Your task to perform on an android device: turn notification dots on Image 0: 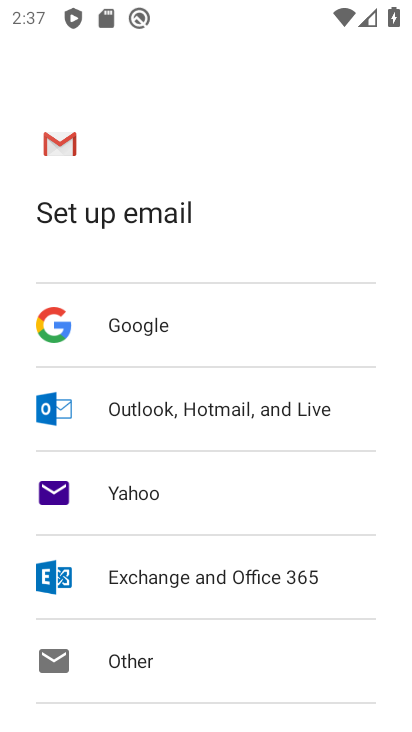
Step 0: press home button
Your task to perform on an android device: turn notification dots on Image 1: 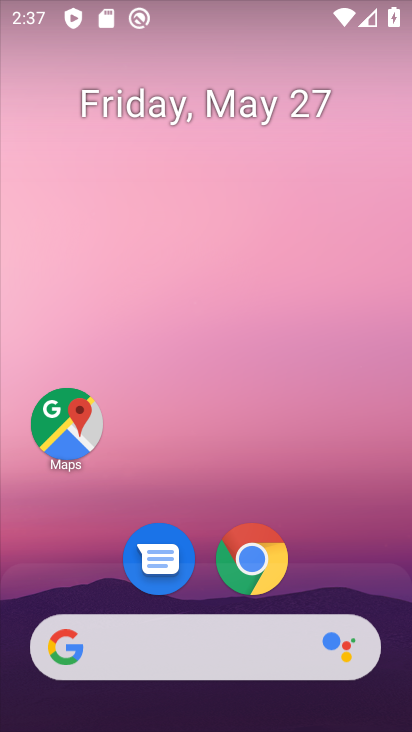
Step 1: drag from (311, 563) to (304, 53)
Your task to perform on an android device: turn notification dots on Image 2: 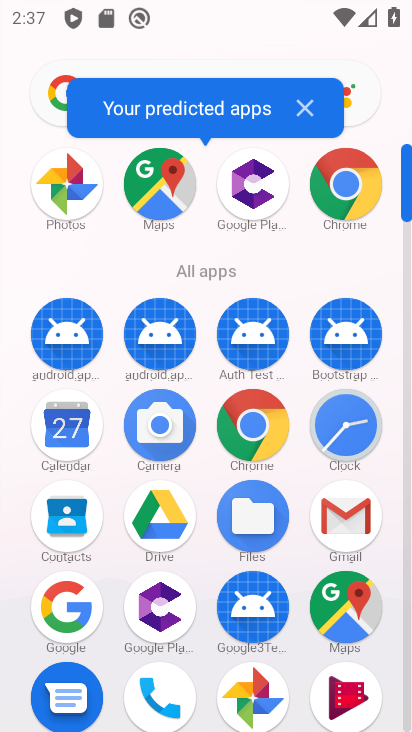
Step 2: drag from (301, 556) to (234, 112)
Your task to perform on an android device: turn notification dots on Image 3: 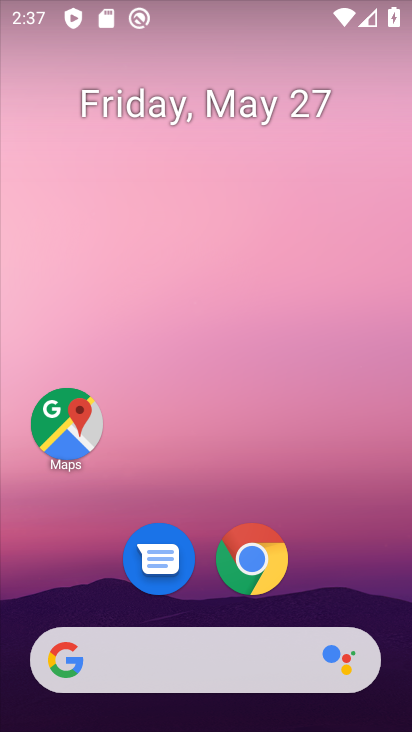
Step 3: drag from (364, 562) to (291, 62)
Your task to perform on an android device: turn notification dots on Image 4: 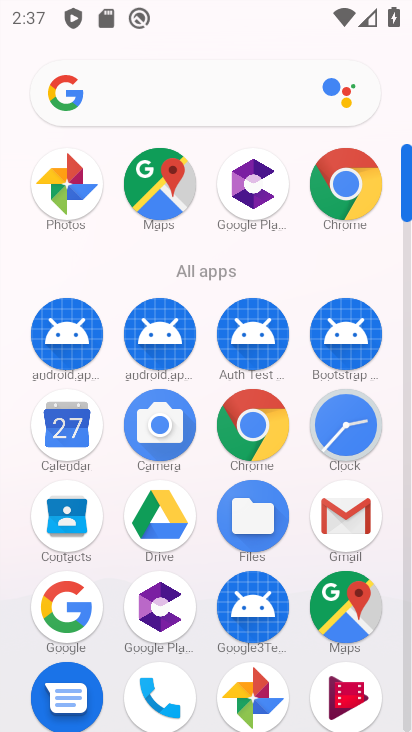
Step 4: drag from (303, 559) to (259, 319)
Your task to perform on an android device: turn notification dots on Image 5: 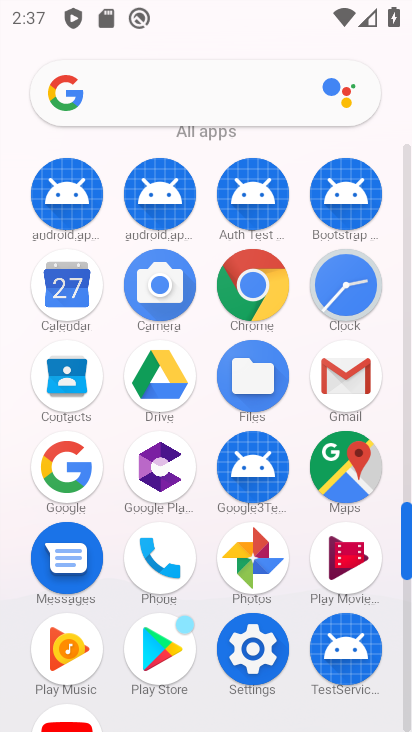
Step 5: click (255, 636)
Your task to perform on an android device: turn notification dots on Image 6: 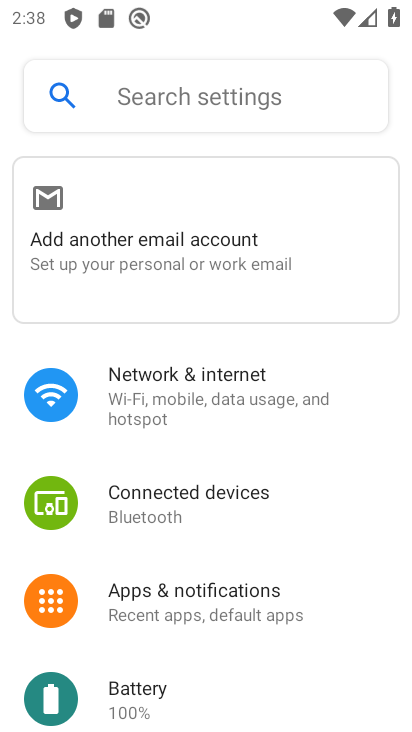
Step 6: click (243, 607)
Your task to perform on an android device: turn notification dots on Image 7: 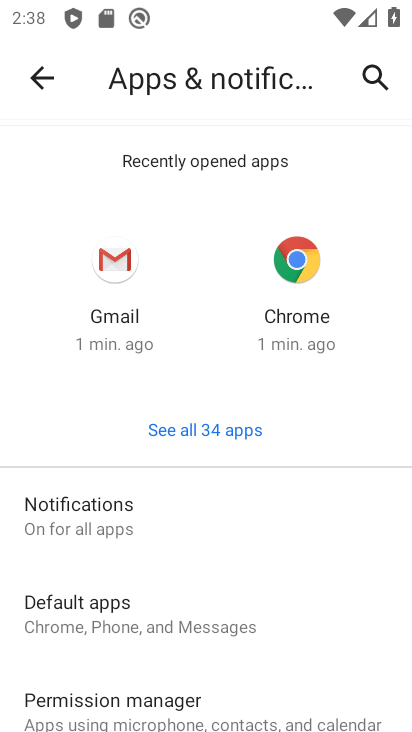
Step 7: click (148, 516)
Your task to perform on an android device: turn notification dots on Image 8: 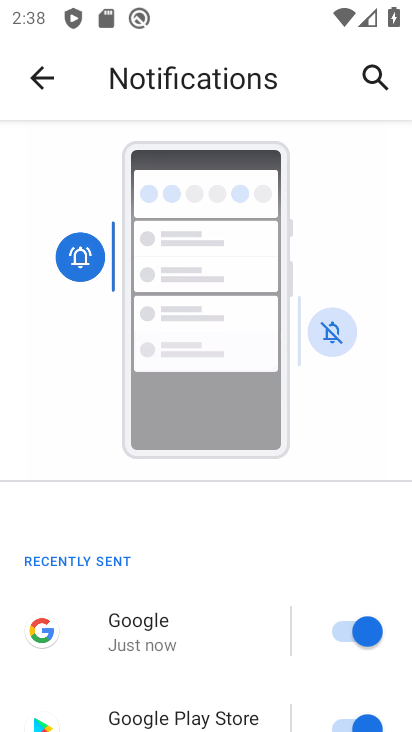
Step 8: drag from (214, 678) to (115, 102)
Your task to perform on an android device: turn notification dots on Image 9: 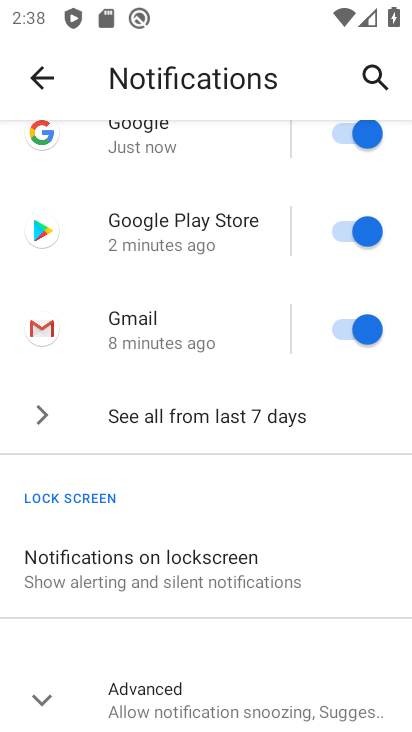
Step 9: click (210, 690)
Your task to perform on an android device: turn notification dots on Image 10: 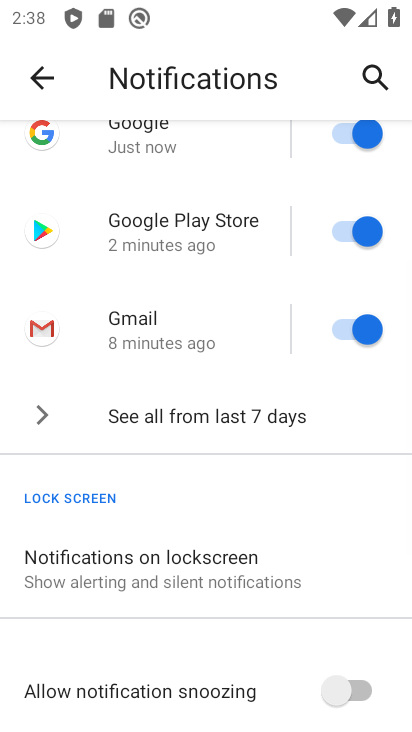
Step 10: task complete